Your task to perform on an android device: Open Amazon Image 0: 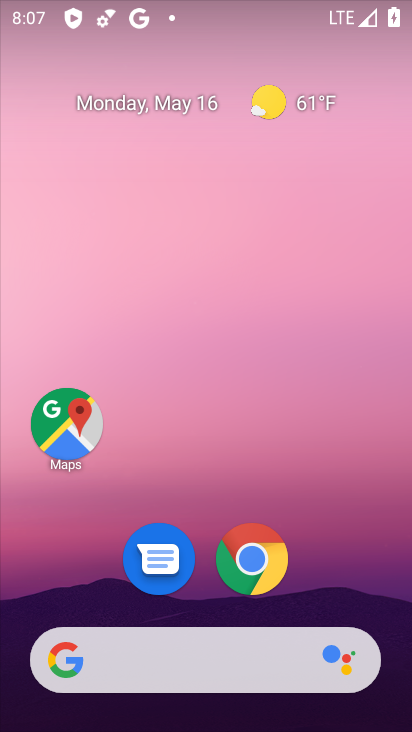
Step 0: click (250, 569)
Your task to perform on an android device: Open Amazon Image 1: 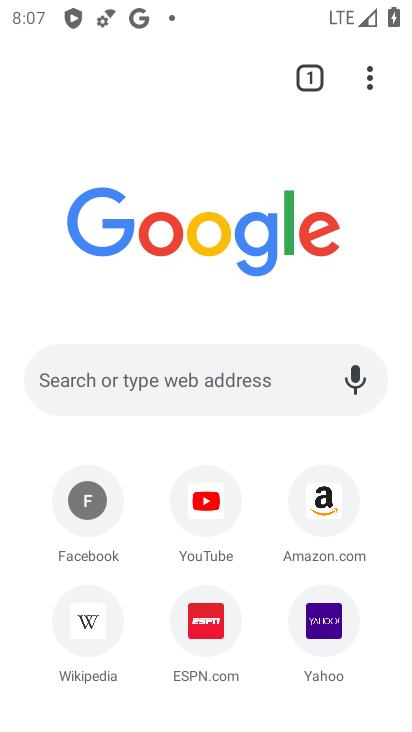
Step 1: click (328, 507)
Your task to perform on an android device: Open Amazon Image 2: 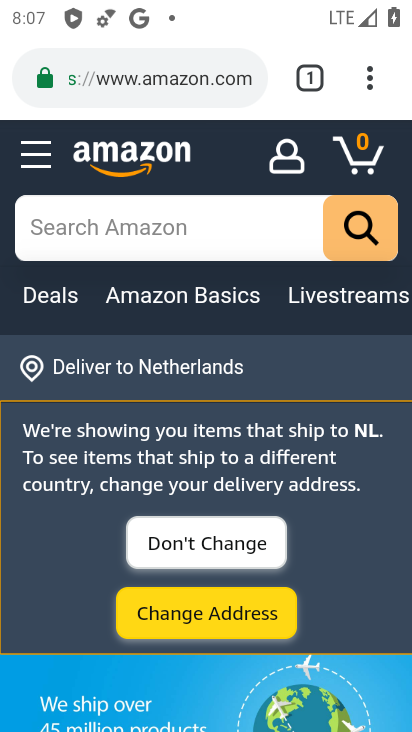
Step 2: task complete